Your task to perform on an android device: toggle data saver in the chrome app Image 0: 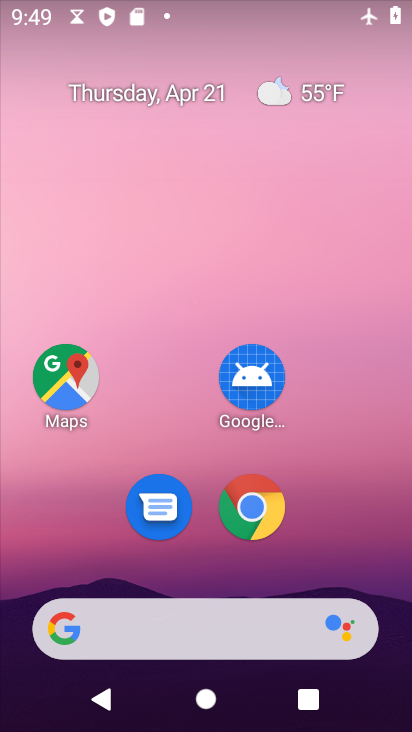
Step 0: drag from (319, 522) to (359, 205)
Your task to perform on an android device: toggle data saver in the chrome app Image 1: 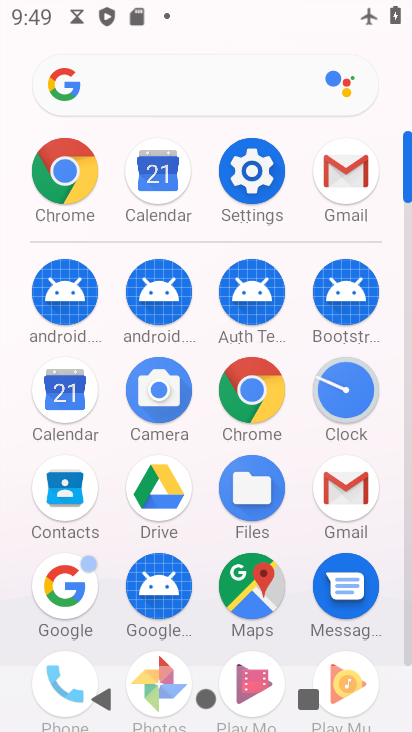
Step 1: click (249, 381)
Your task to perform on an android device: toggle data saver in the chrome app Image 2: 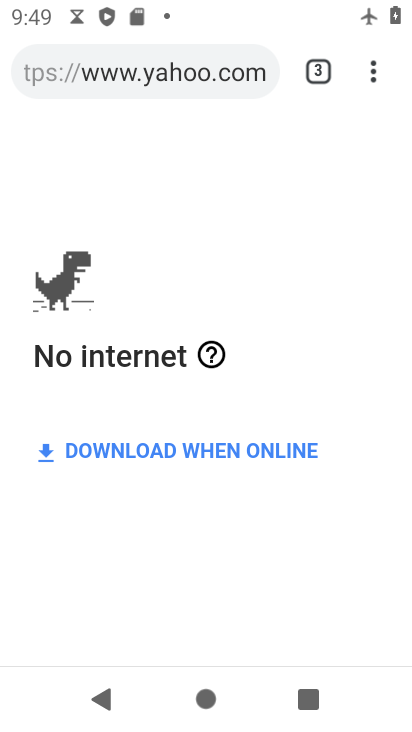
Step 2: click (365, 67)
Your task to perform on an android device: toggle data saver in the chrome app Image 3: 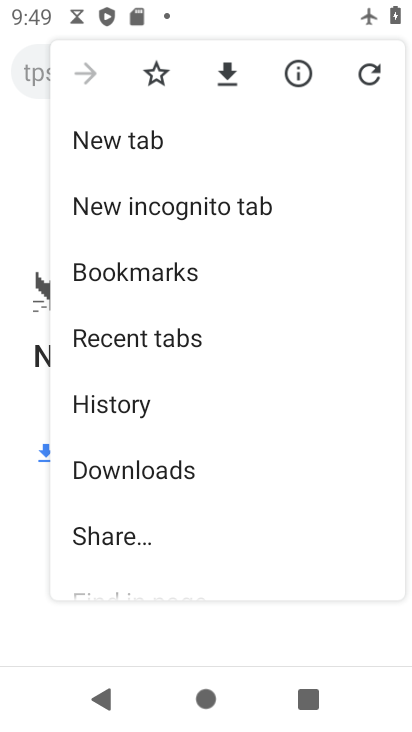
Step 3: drag from (188, 454) to (207, 151)
Your task to perform on an android device: toggle data saver in the chrome app Image 4: 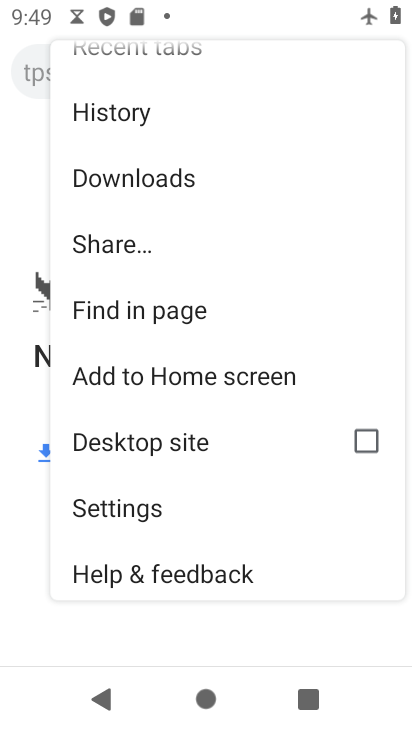
Step 4: click (128, 504)
Your task to perform on an android device: toggle data saver in the chrome app Image 5: 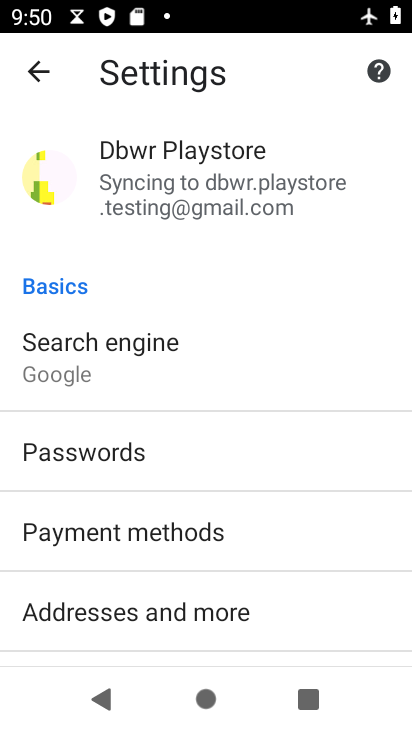
Step 5: drag from (153, 590) to (252, 202)
Your task to perform on an android device: toggle data saver in the chrome app Image 6: 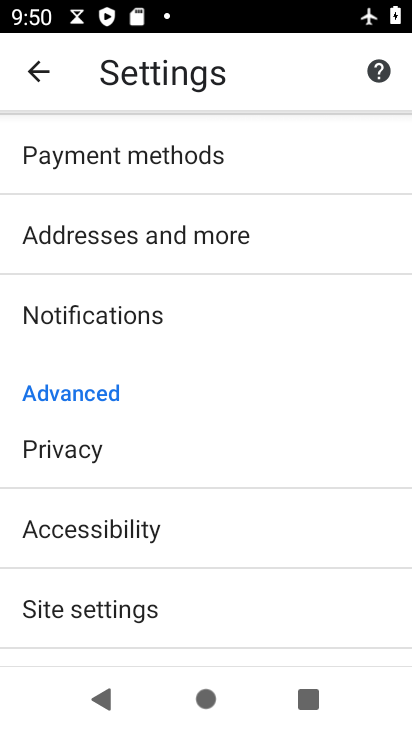
Step 6: drag from (196, 596) to (283, 206)
Your task to perform on an android device: toggle data saver in the chrome app Image 7: 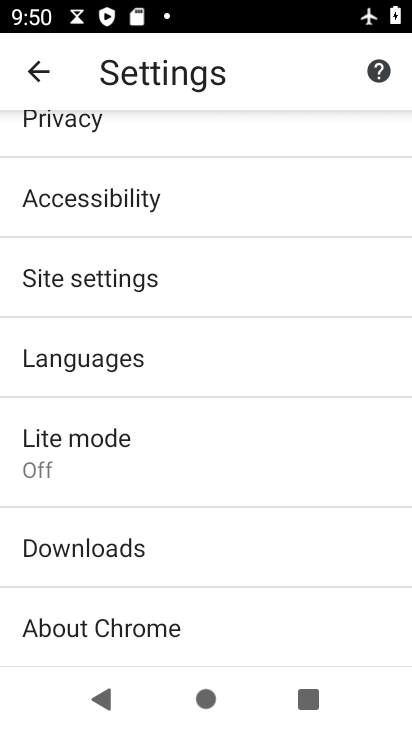
Step 7: click (153, 427)
Your task to perform on an android device: toggle data saver in the chrome app Image 8: 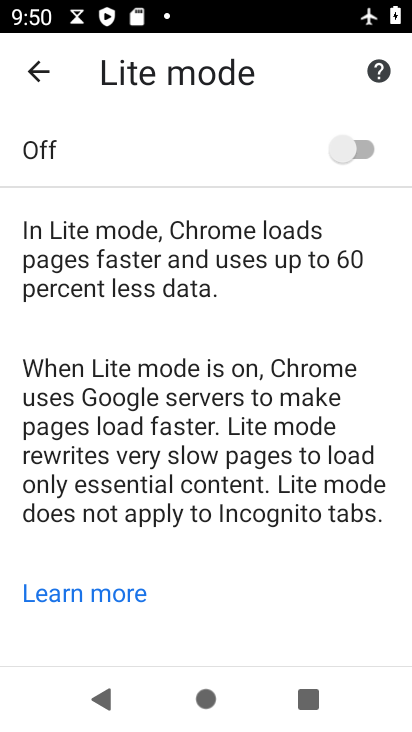
Step 8: click (356, 154)
Your task to perform on an android device: toggle data saver in the chrome app Image 9: 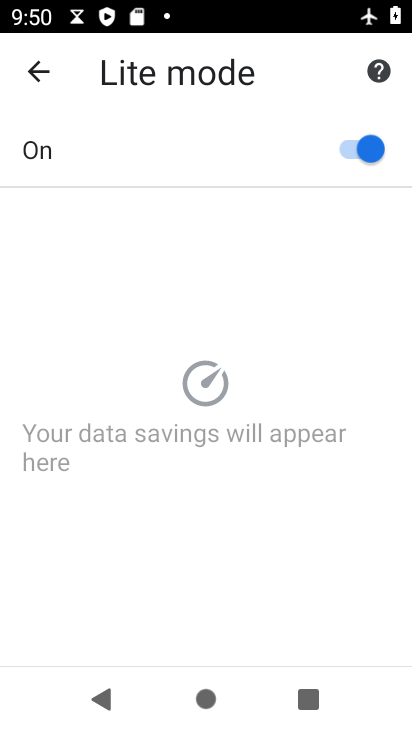
Step 9: task complete